Your task to perform on an android device: open sync settings in chrome Image 0: 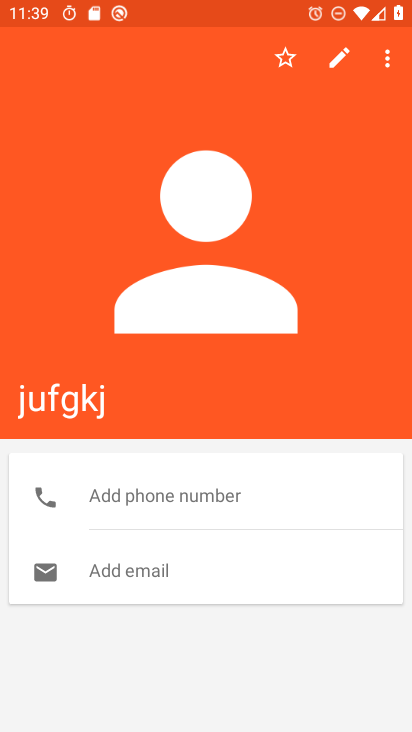
Step 0: press home button
Your task to perform on an android device: open sync settings in chrome Image 1: 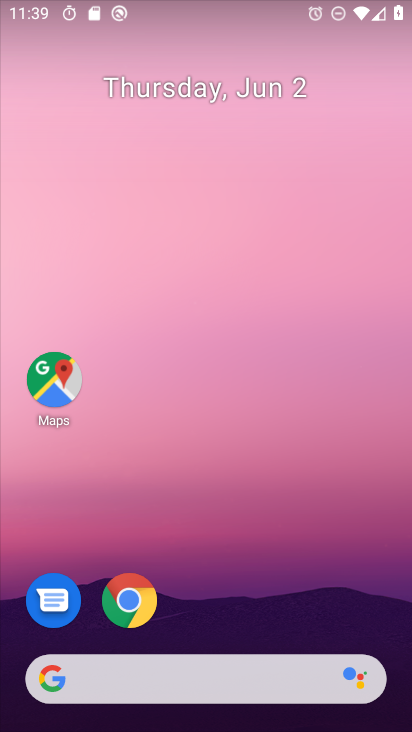
Step 1: click (126, 605)
Your task to perform on an android device: open sync settings in chrome Image 2: 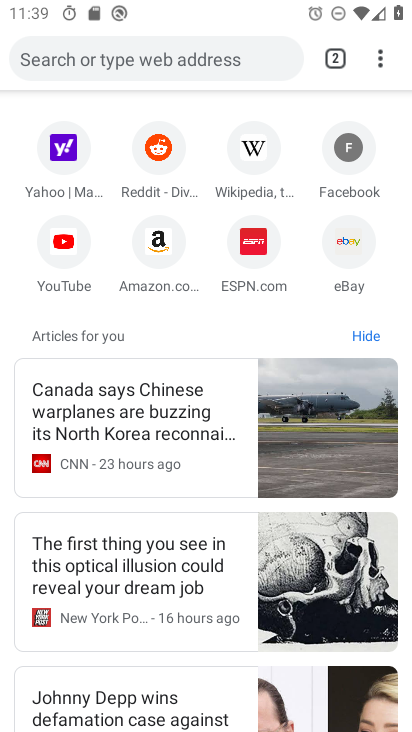
Step 2: click (373, 60)
Your task to perform on an android device: open sync settings in chrome Image 3: 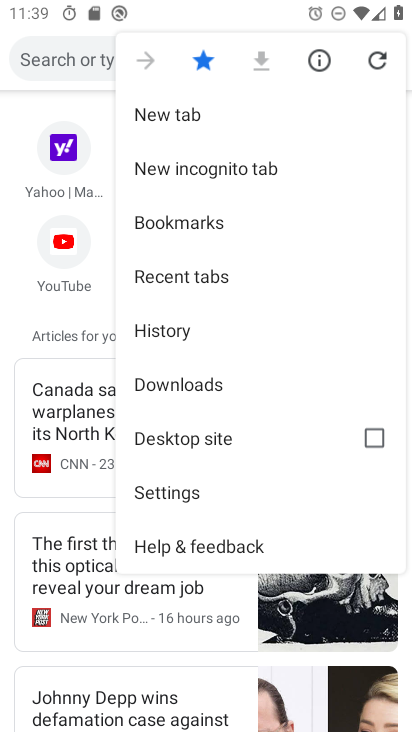
Step 3: click (158, 496)
Your task to perform on an android device: open sync settings in chrome Image 4: 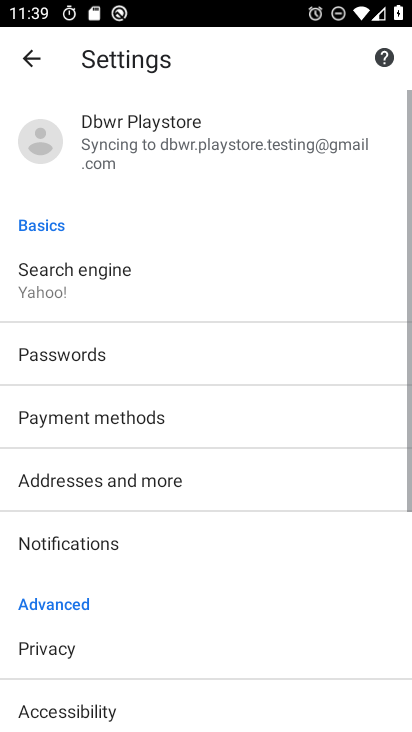
Step 4: drag from (121, 553) to (117, 189)
Your task to perform on an android device: open sync settings in chrome Image 5: 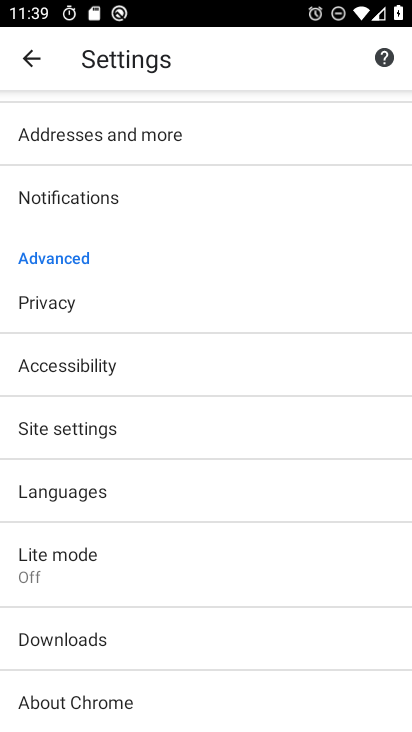
Step 5: click (92, 426)
Your task to perform on an android device: open sync settings in chrome Image 6: 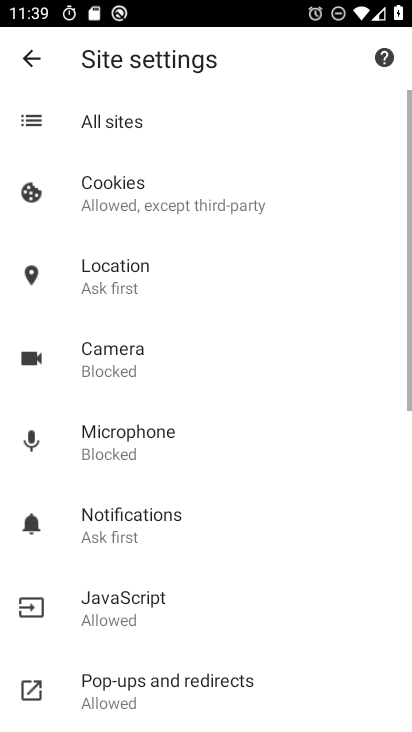
Step 6: drag from (173, 605) to (153, 279)
Your task to perform on an android device: open sync settings in chrome Image 7: 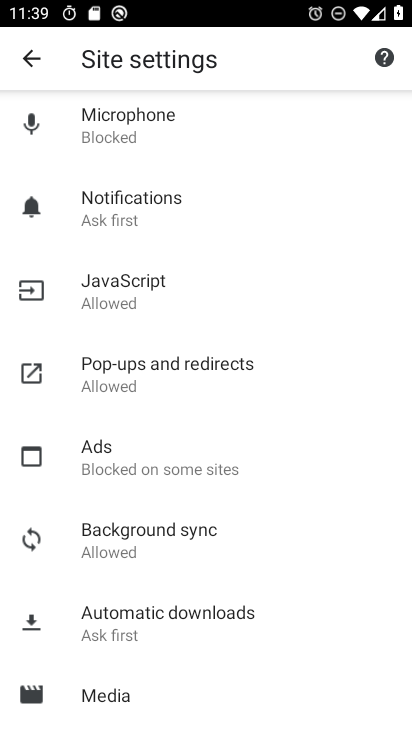
Step 7: click (152, 548)
Your task to perform on an android device: open sync settings in chrome Image 8: 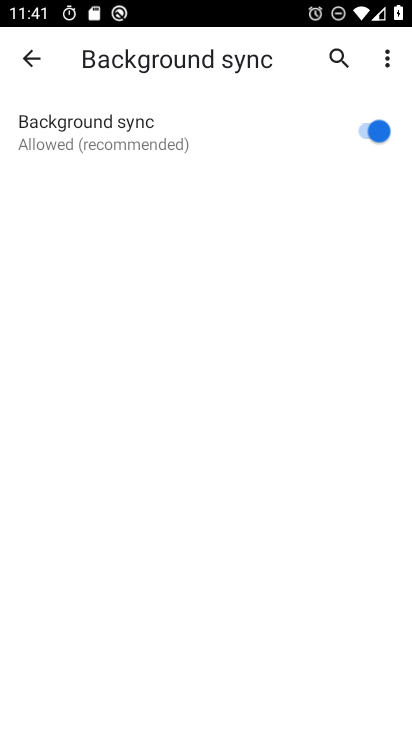
Step 8: task complete